Your task to perform on an android device: turn on priority inbox in the gmail app Image 0: 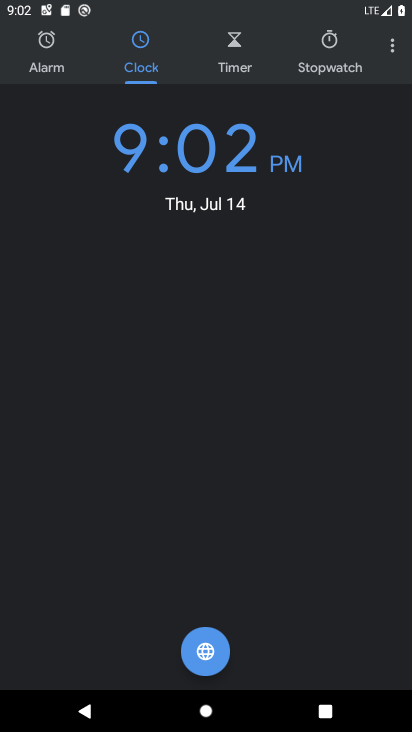
Step 0: press home button
Your task to perform on an android device: turn on priority inbox in the gmail app Image 1: 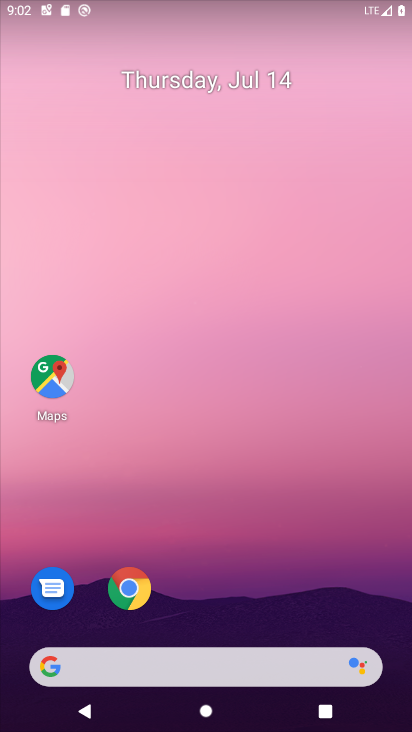
Step 1: drag from (258, 611) to (241, 36)
Your task to perform on an android device: turn on priority inbox in the gmail app Image 2: 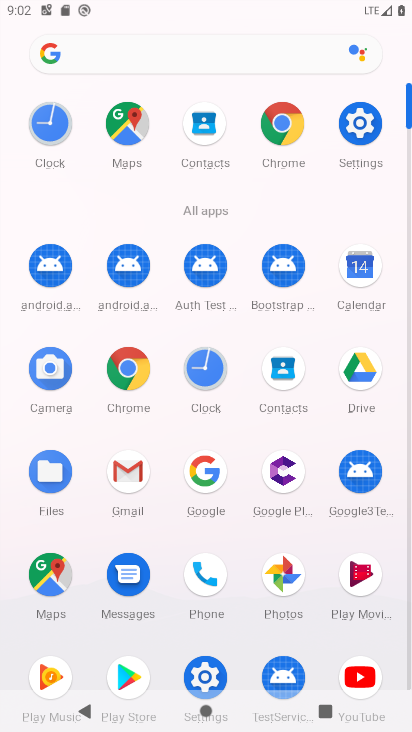
Step 2: click (131, 469)
Your task to perform on an android device: turn on priority inbox in the gmail app Image 3: 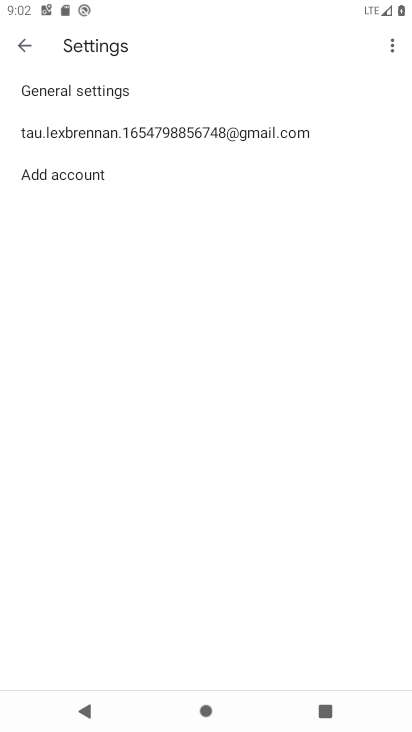
Step 3: click (235, 125)
Your task to perform on an android device: turn on priority inbox in the gmail app Image 4: 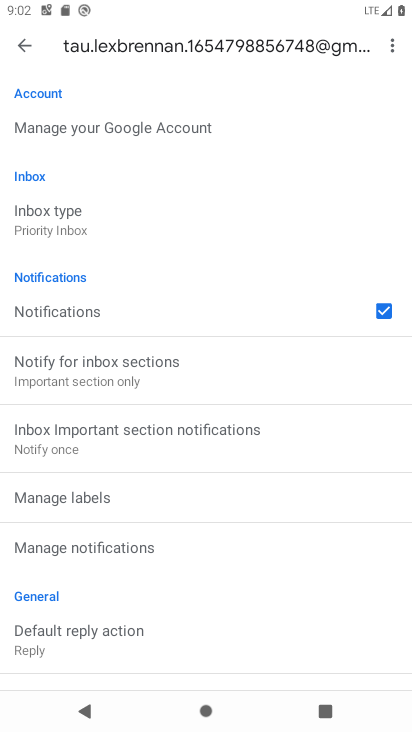
Step 4: click (45, 218)
Your task to perform on an android device: turn on priority inbox in the gmail app Image 5: 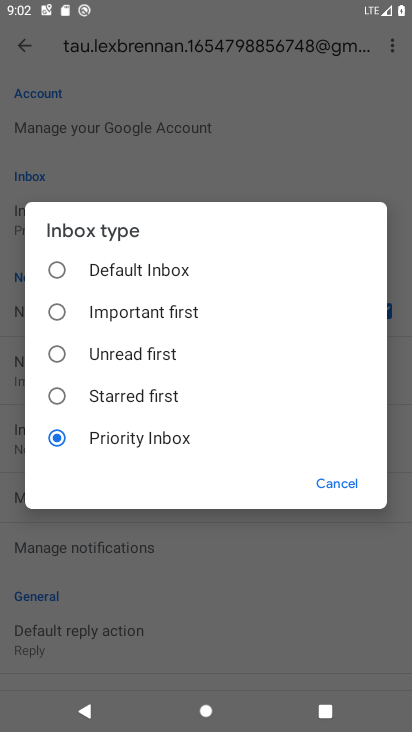
Step 5: click (140, 434)
Your task to perform on an android device: turn on priority inbox in the gmail app Image 6: 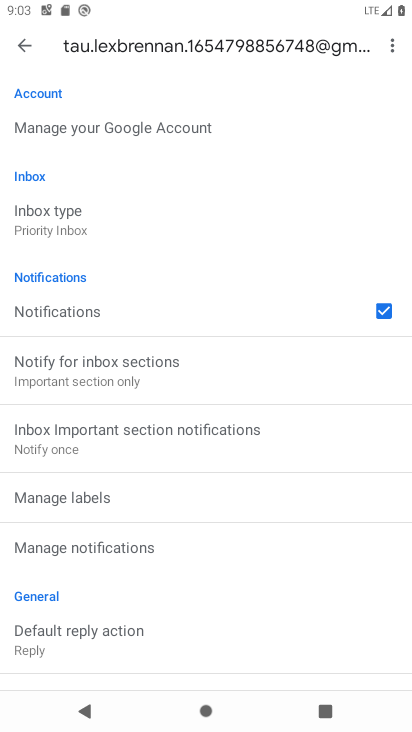
Step 6: task complete